Your task to perform on an android device: toggle airplane mode Image 0: 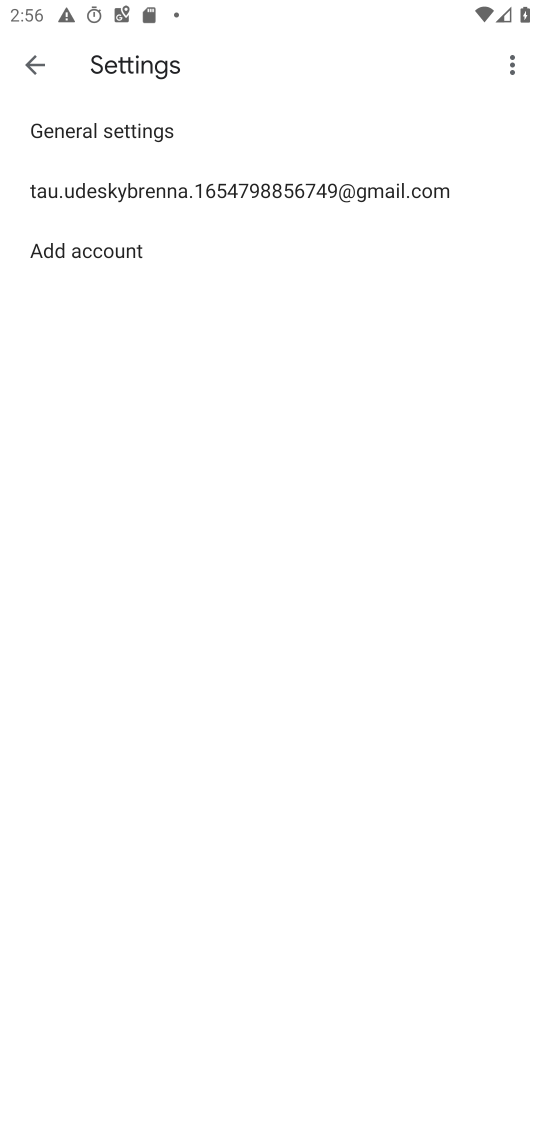
Step 0: press home button
Your task to perform on an android device: toggle airplane mode Image 1: 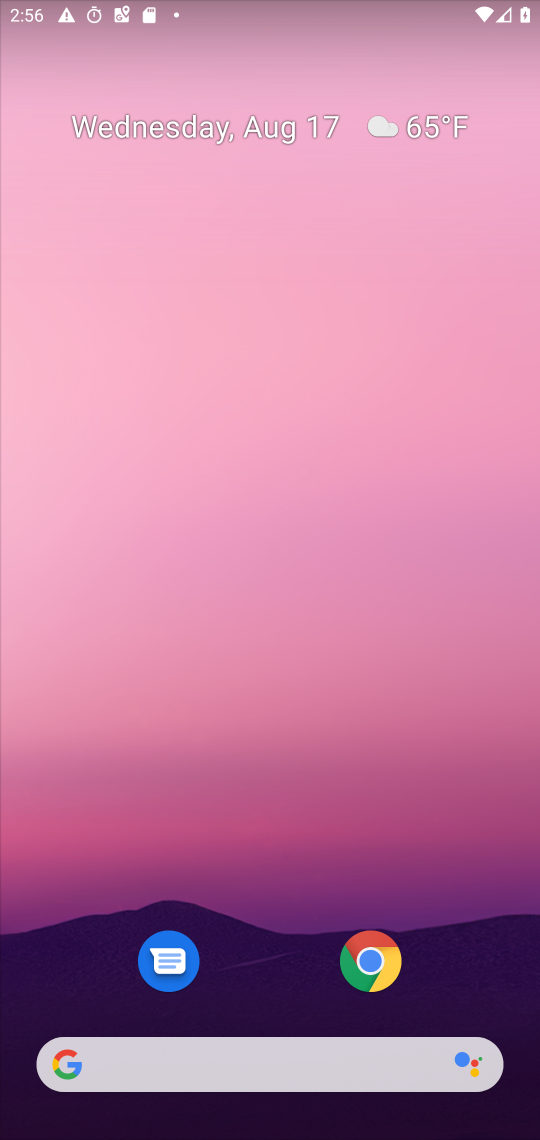
Step 1: drag from (336, 1034) to (400, 75)
Your task to perform on an android device: toggle airplane mode Image 2: 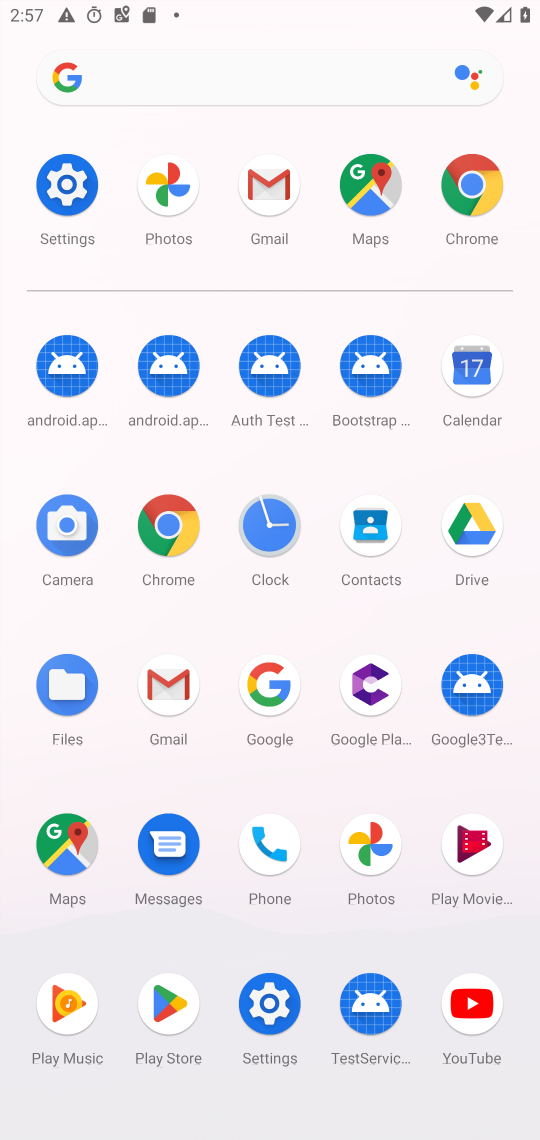
Step 2: click (66, 206)
Your task to perform on an android device: toggle airplane mode Image 3: 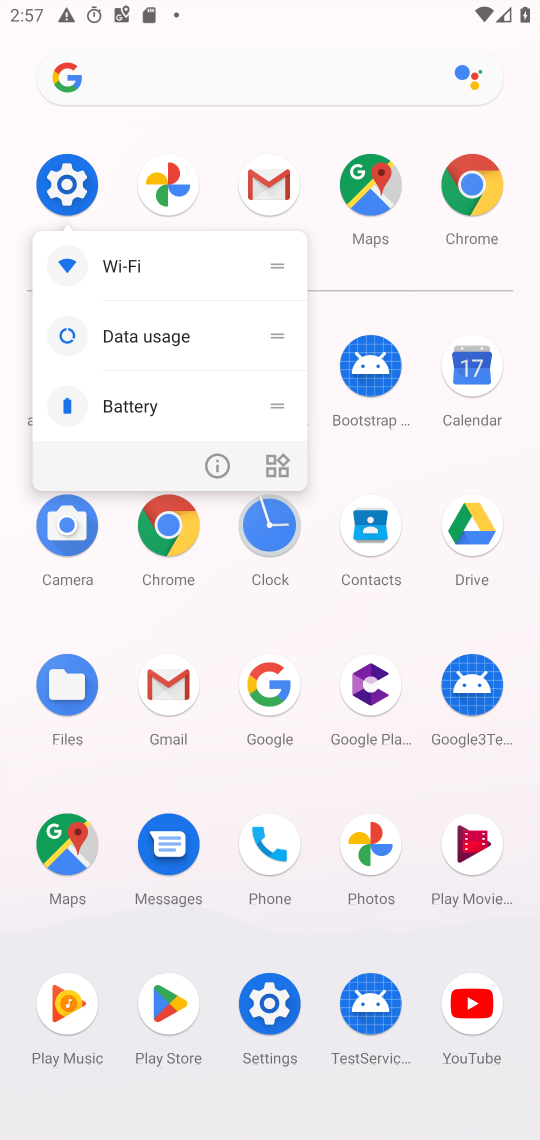
Step 3: click (56, 183)
Your task to perform on an android device: toggle airplane mode Image 4: 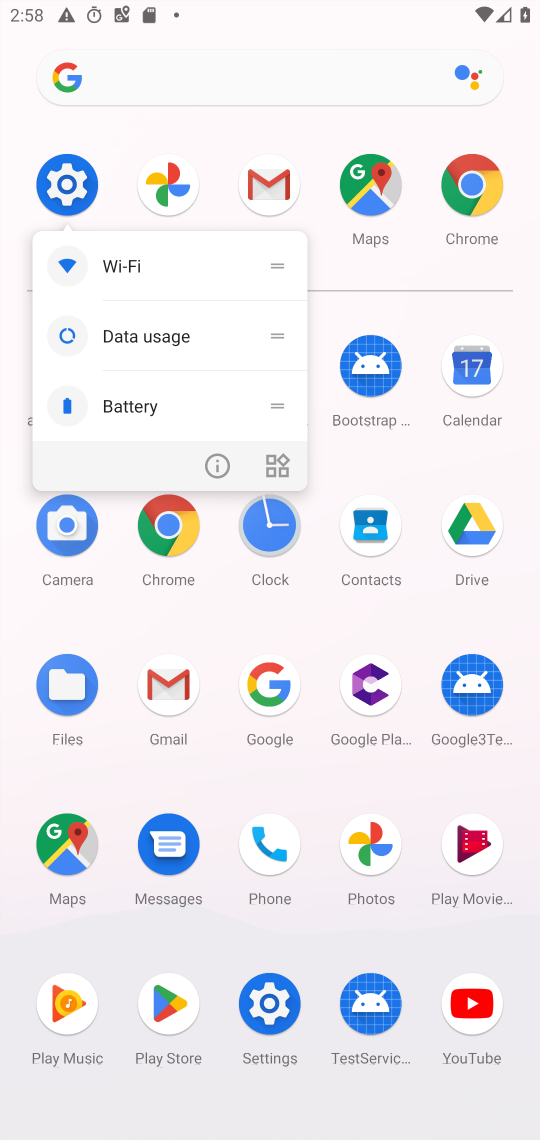
Step 4: click (278, 1001)
Your task to perform on an android device: toggle airplane mode Image 5: 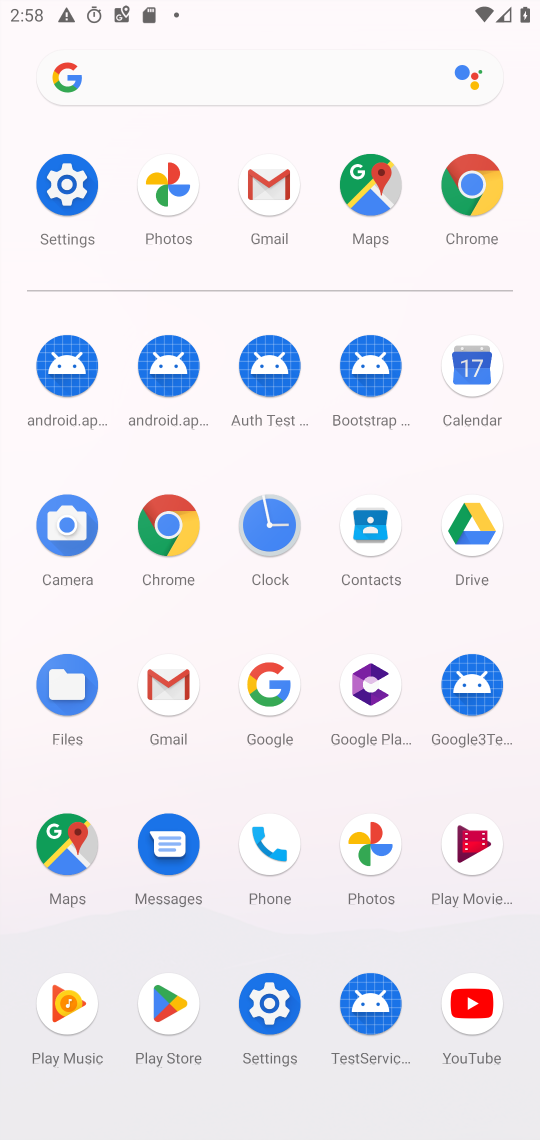
Step 5: click (305, 1005)
Your task to perform on an android device: toggle airplane mode Image 6: 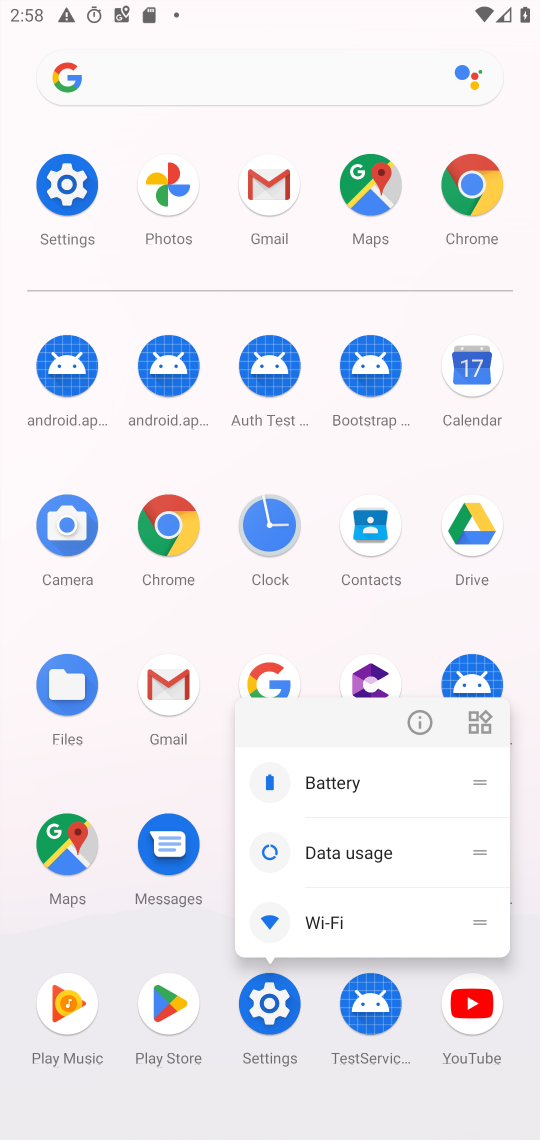
Step 6: click (278, 1027)
Your task to perform on an android device: toggle airplane mode Image 7: 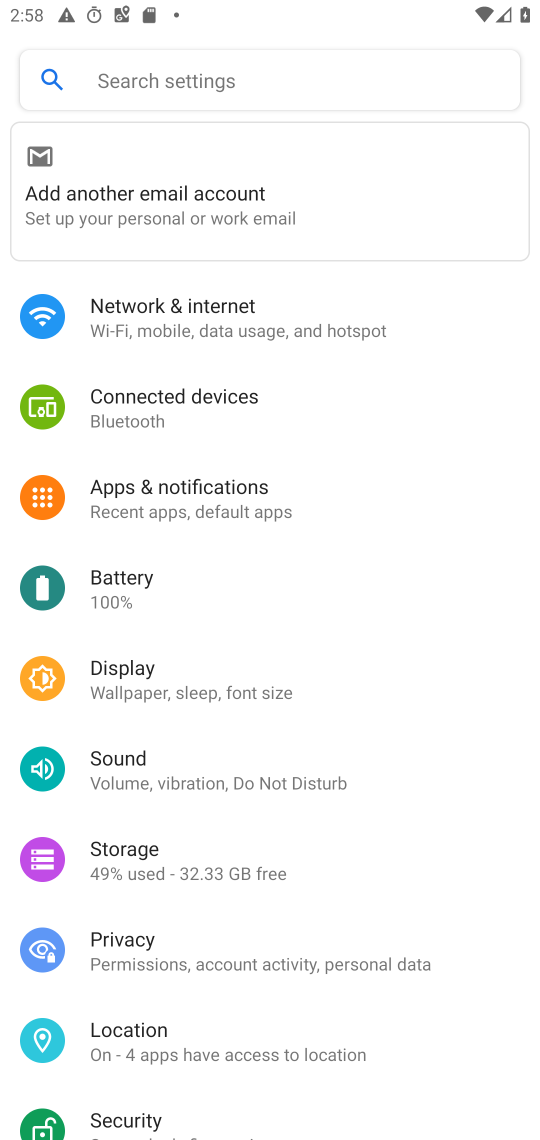
Step 7: click (249, 292)
Your task to perform on an android device: toggle airplane mode Image 8: 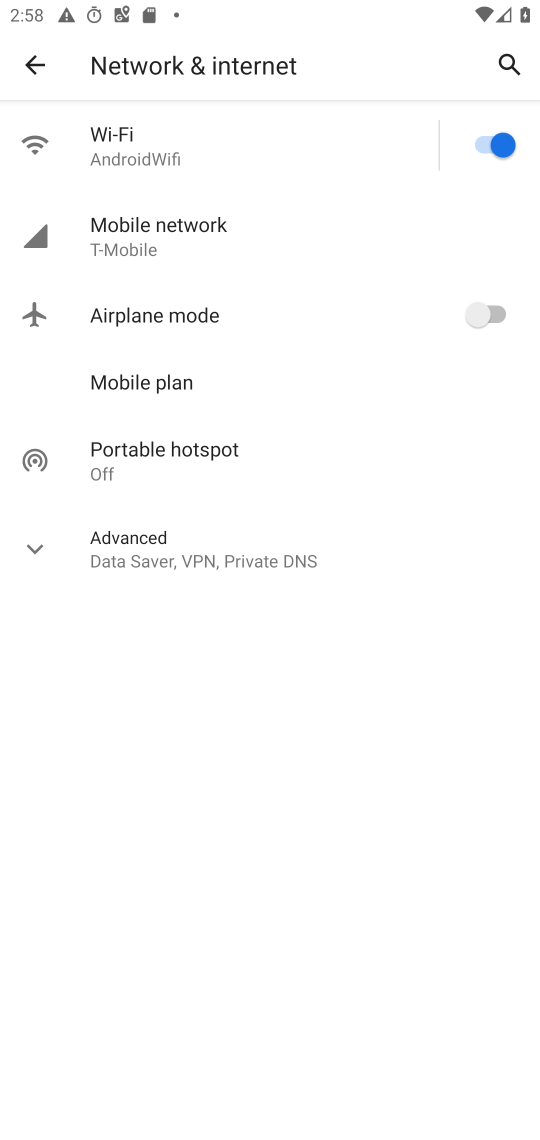
Step 8: click (298, 313)
Your task to perform on an android device: toggle airplane mode Image 9: 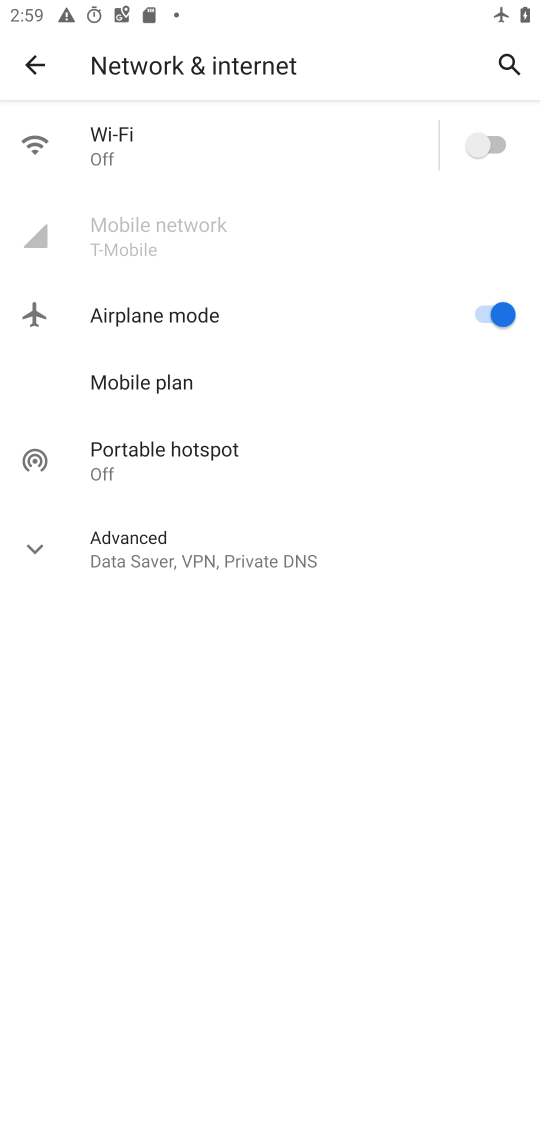
Step 9: task complete